Your task to perform on an android device: turn off smart reply in the gmail app Image 0: 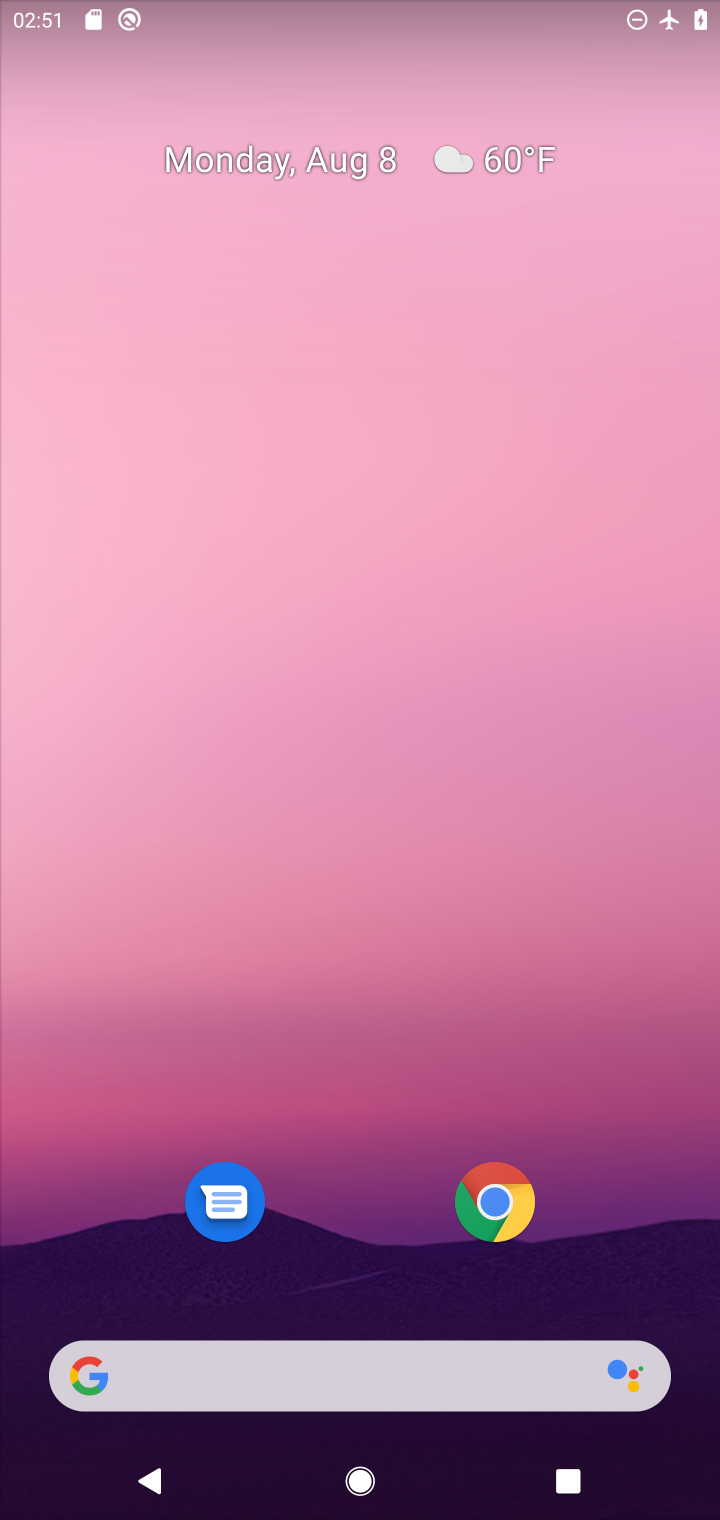
Step 0: press home button
Your task to perform on an android device: turn off smart reply in the gmail app Image 1: 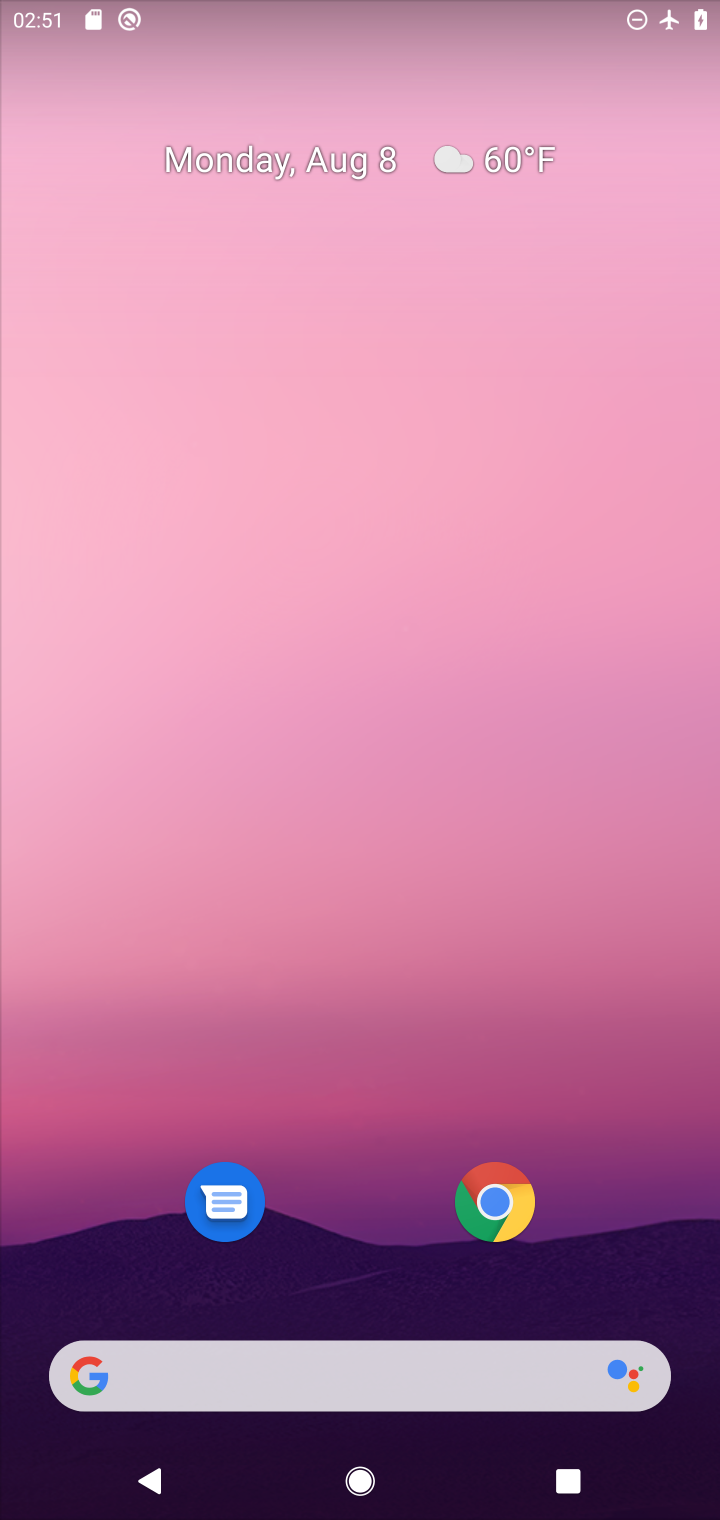
Step 1: drag from (381, 1251) to (458, 333)
Your task to perform on an android device: turn off smart reply in the gmail app Image 2: 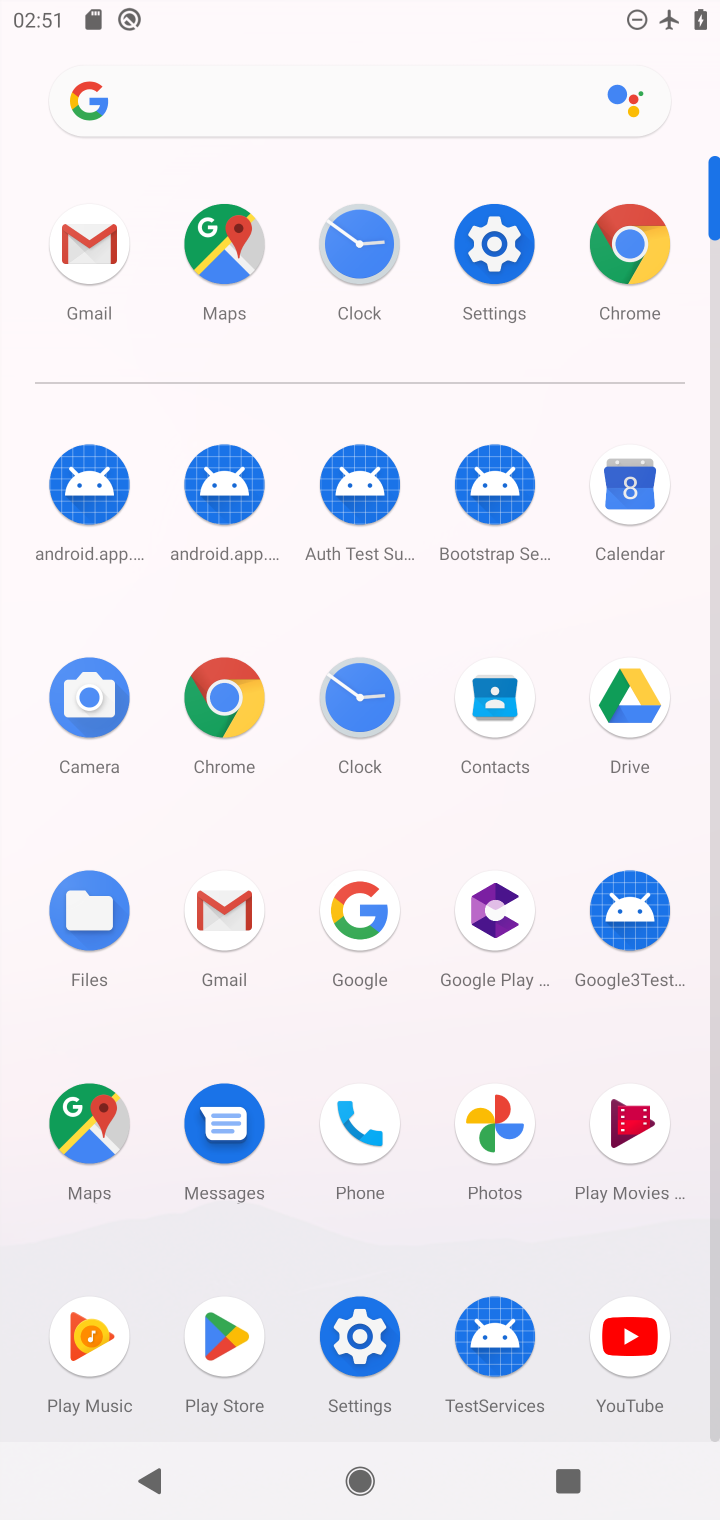
Step 2: click (198, 911)
Your task to perform on an android device: turn off smart reply in the gmail app Image 3: 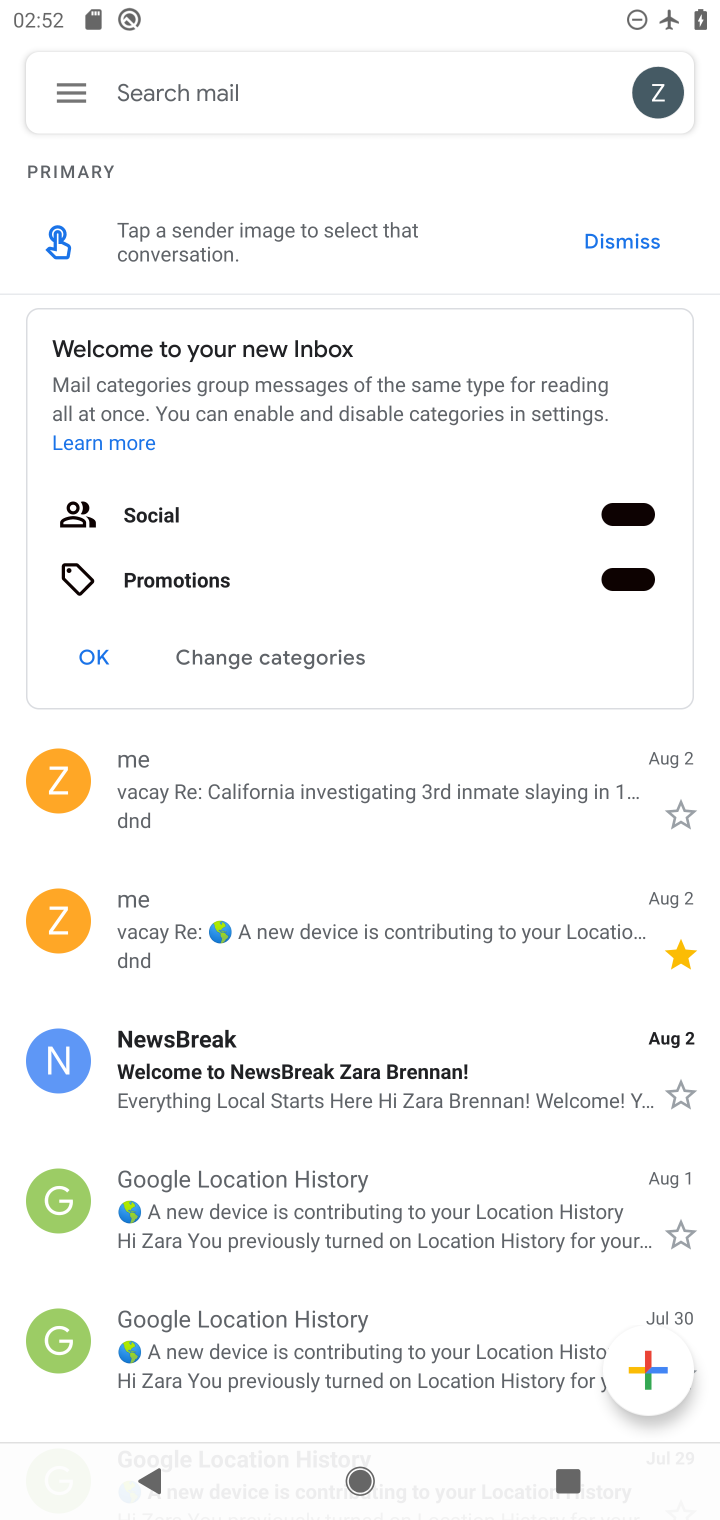
Step 3: click (69, 84)
Your task to perform on an android device: turn off smart reply in the gmail app Image 4: 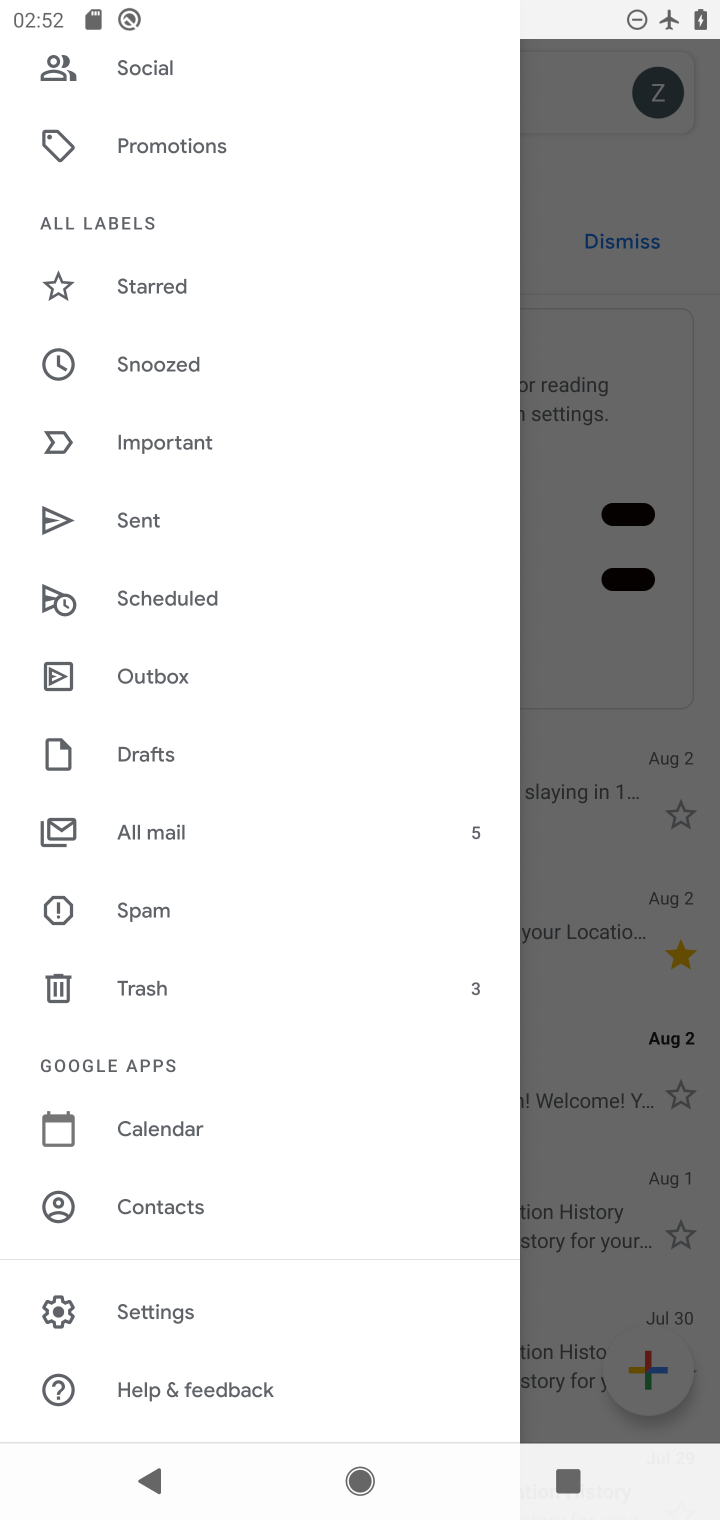
Step 4: click (247, 1302)
Your task to perform on an android device: turn off smart reply in the gmail app Image 5: 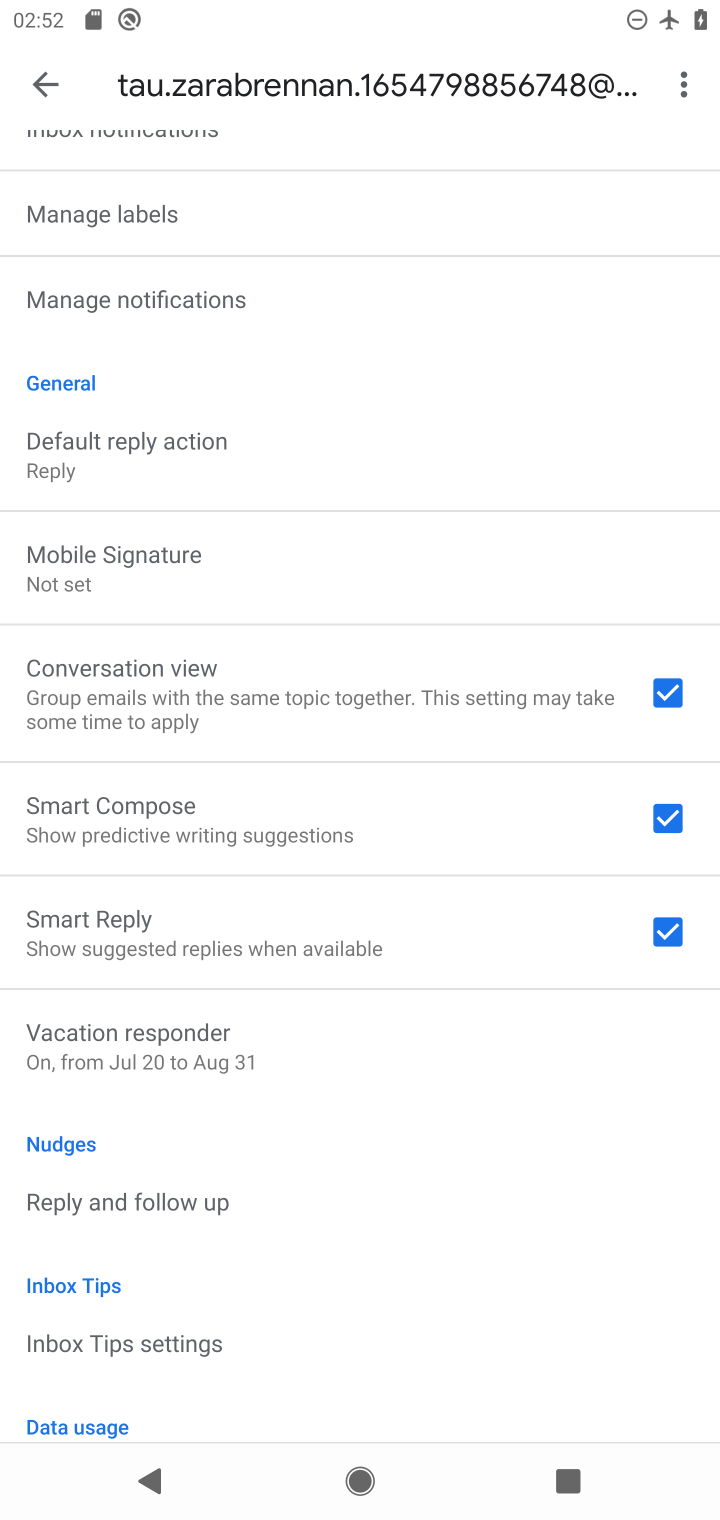
Step 5: drag from (502, 1087) to (515, 705)
Your task to perform on an android device: turn off smart reply in the gmail app Image 6: 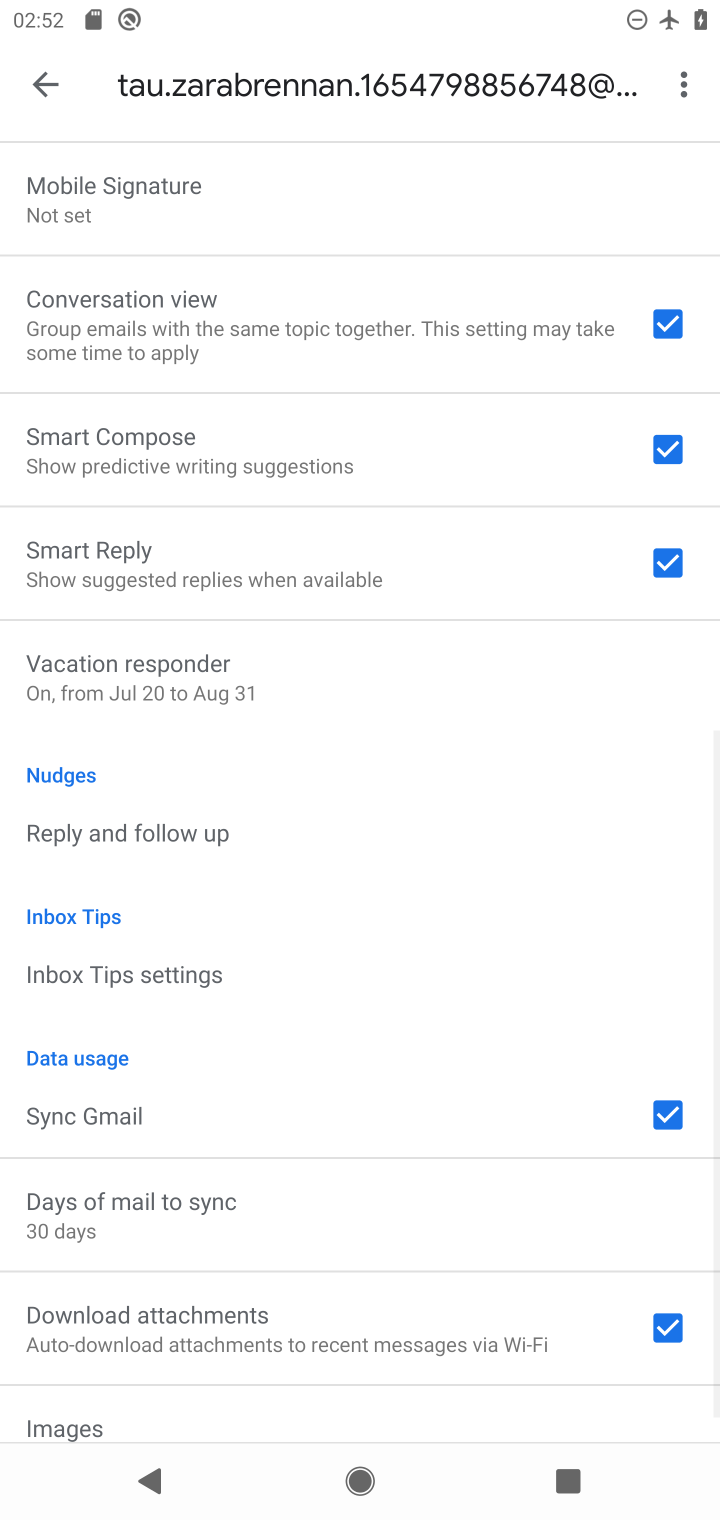
Step 6: drag from (449, 1029) to (469, 662)
Your task to perform on an android device: turn off smart reply in the gmail app Image 7: 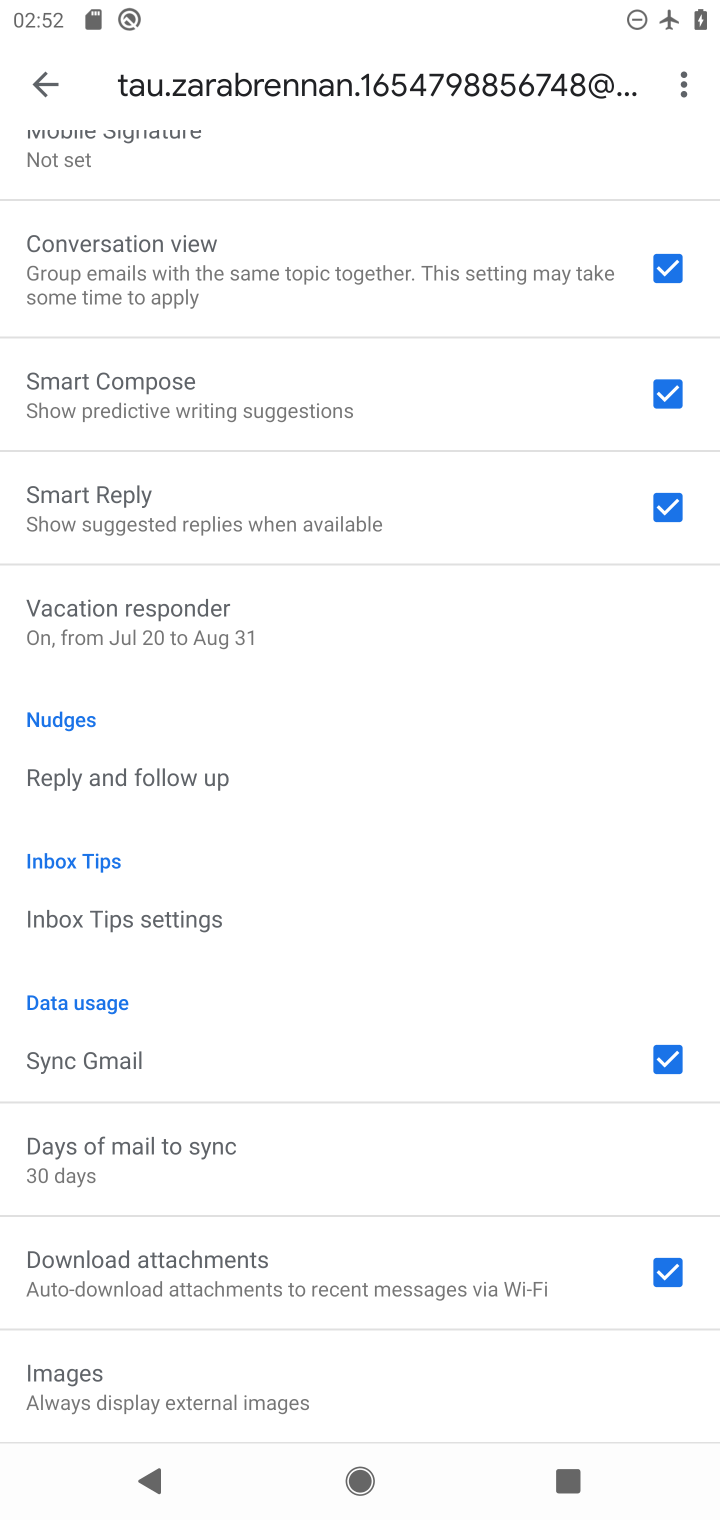
Step 7: click (671, 512)
Your task to perform on an android device: turn off smart reply in the gmail app Image 8: 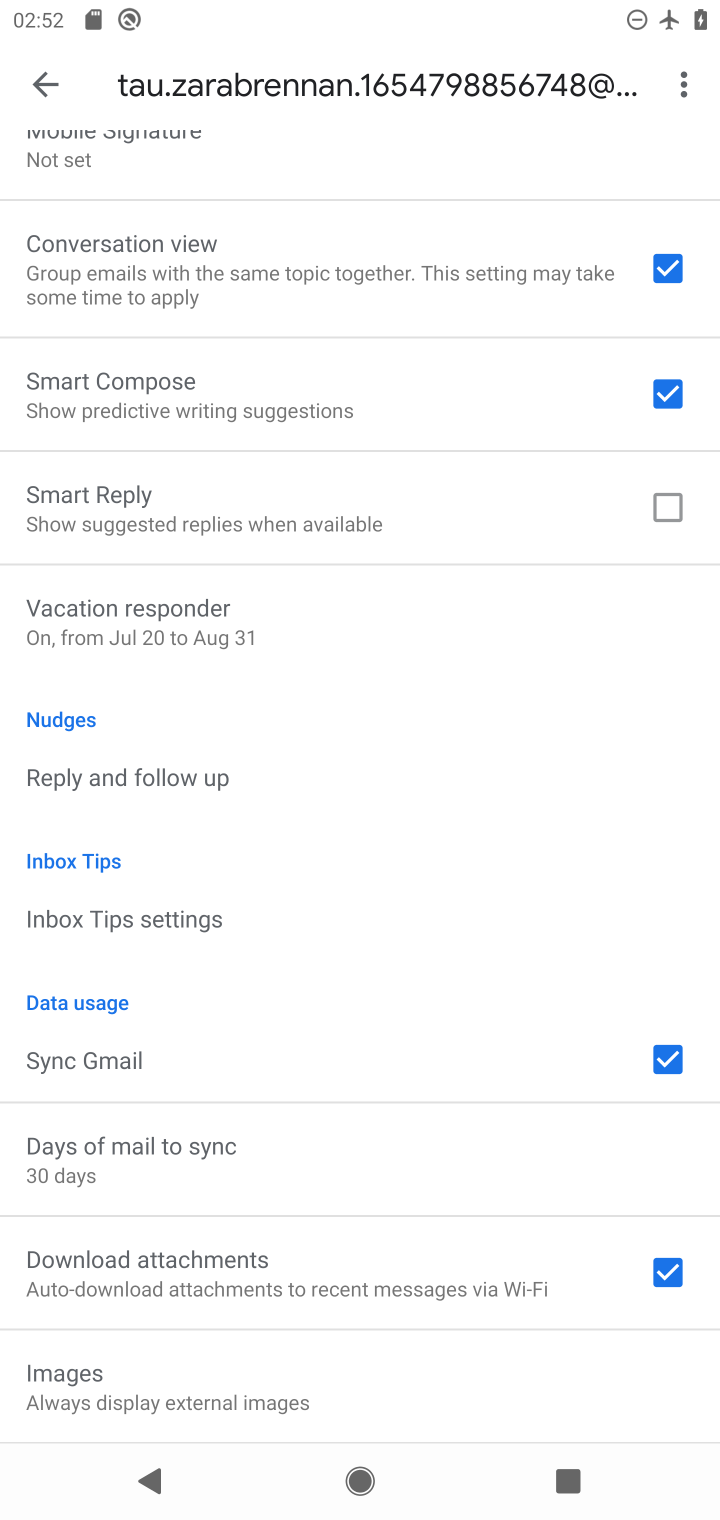
Step 8: task complete